Your task to perform on an android device: check data usage Image 0: 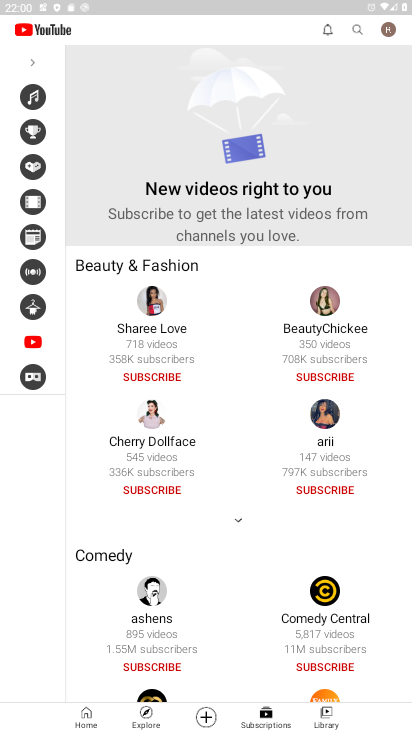
Step 0: press home button
Your task to perform on an android device: check data usage Image 1: 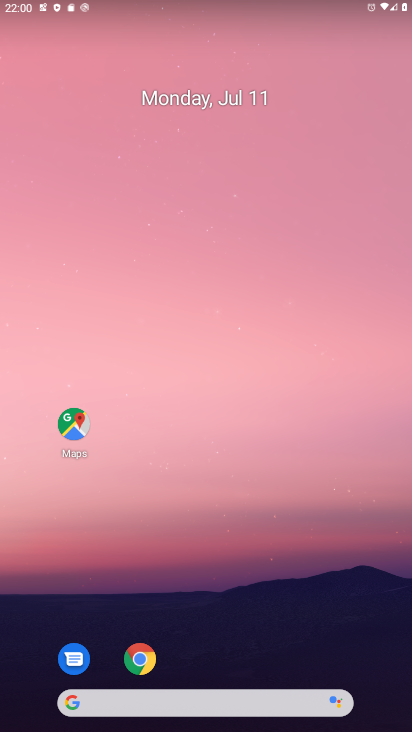
Step 1: drag from (194, 582) to (220, 3)
Your task to perform on an android device: check data usage Image 2: 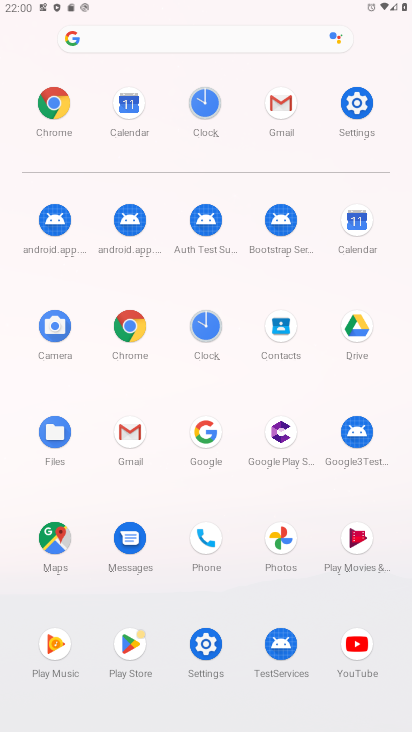
Step 2: click (354, 101)
Your task to perform on an android device: check data usage Image 3: 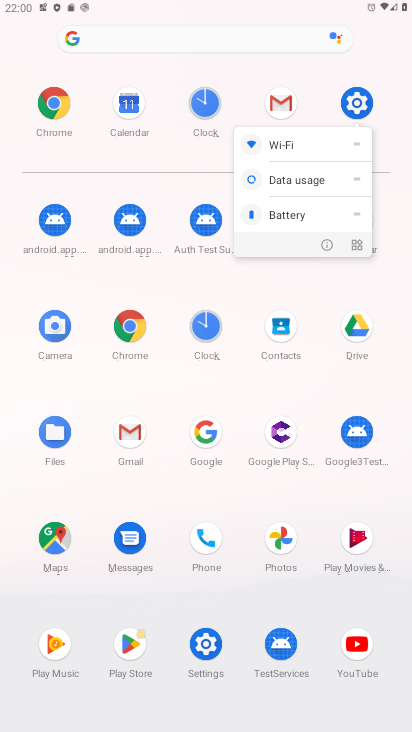
Step 3: click (280, 185)
Your task to perform on an android device: check data usage Image 4: 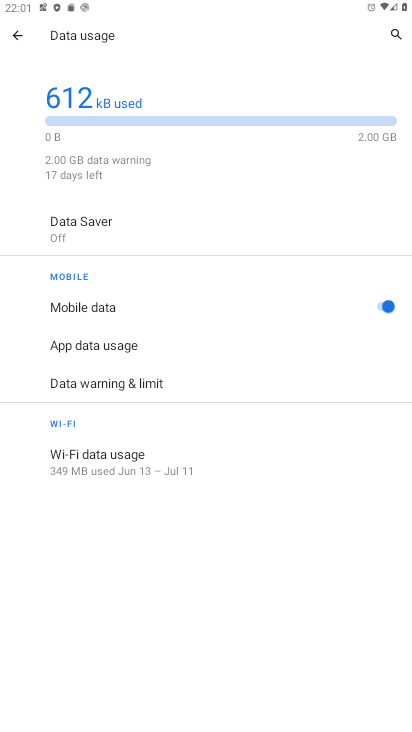
Step 4: task complete